Your task to perform on an android device: Go to Google maps Image 0: 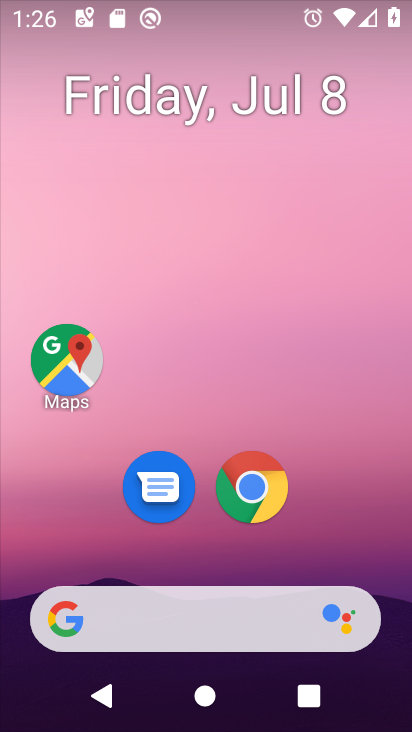
Step 0: drag from (364, 548) to (365, 162)
Your task to perform on an android device: Go to Google maps Image 1: 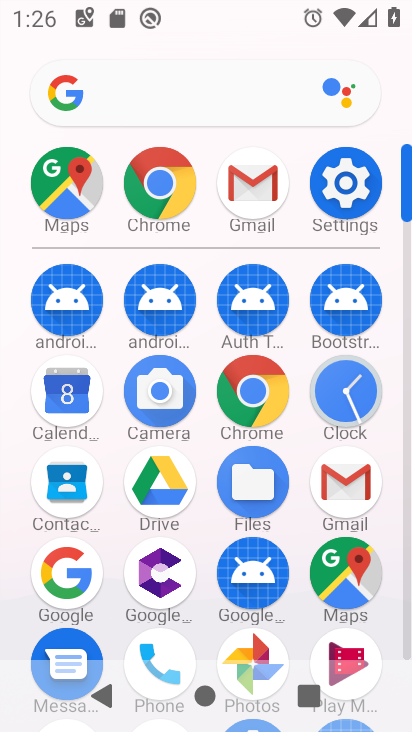
Step 1: click (341, 573)
Your task to perform on an android device: Go to Google maps Image 2: 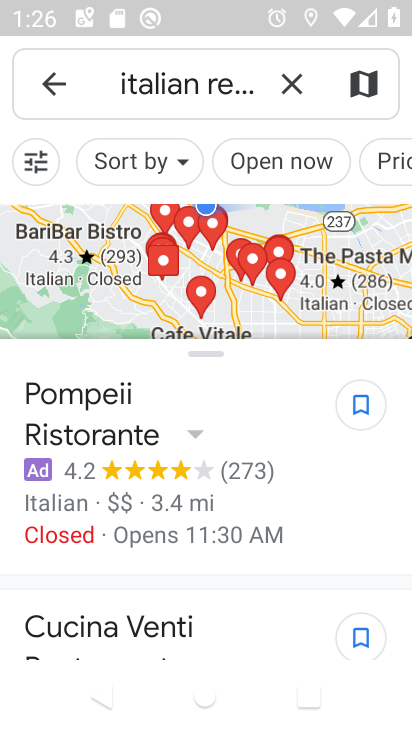
Step 2: task complete